Your task to perform on an android device: toggle notifications settings in the gmail app Image 0: 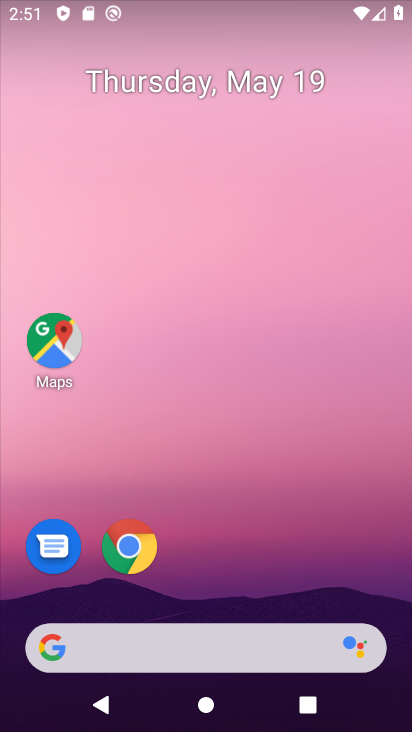
Step 0: drag from (209, 567) to (254, 102)
Your task to perform on an android device: toggle notifications settings in the gmail app Image 1: 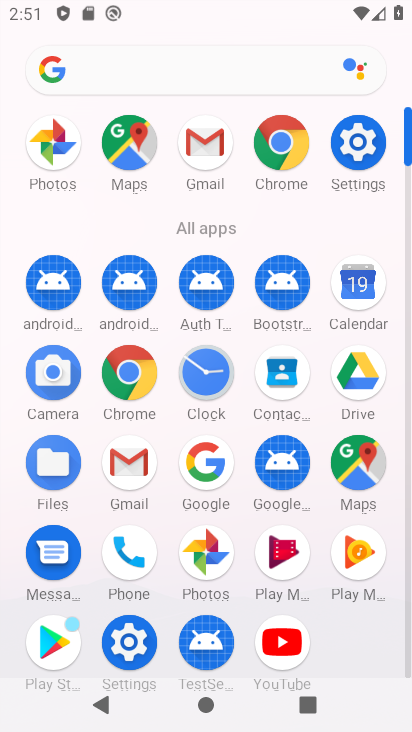
Step 1: click (137, 459)
Your task to perform on an android device: toggle notifications settings in the gmail app Image 2: 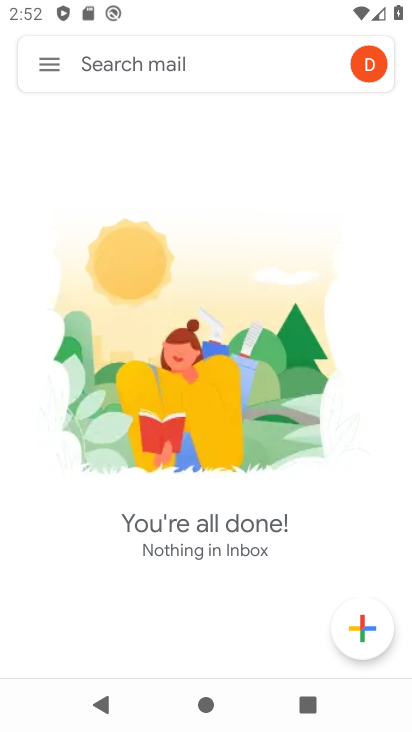
Step 2: click (54, 68)
Your task to perform on an android device: toggle notifications settings in the gmail app Image 3: 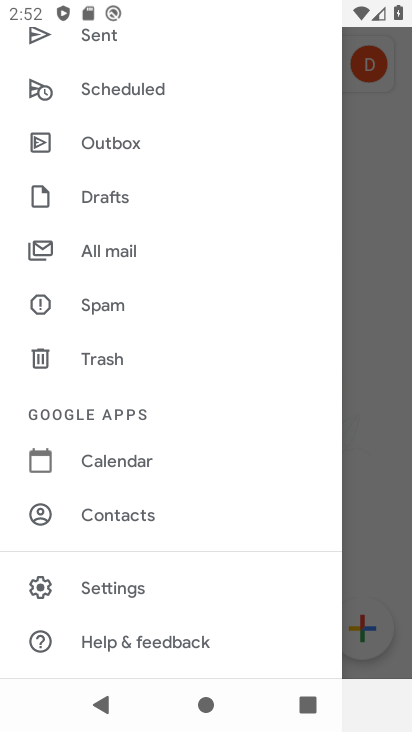
Step 3: click (126, 591)
Your task to perform on an android device: toggle notifications settings in the gmail app Image 4: 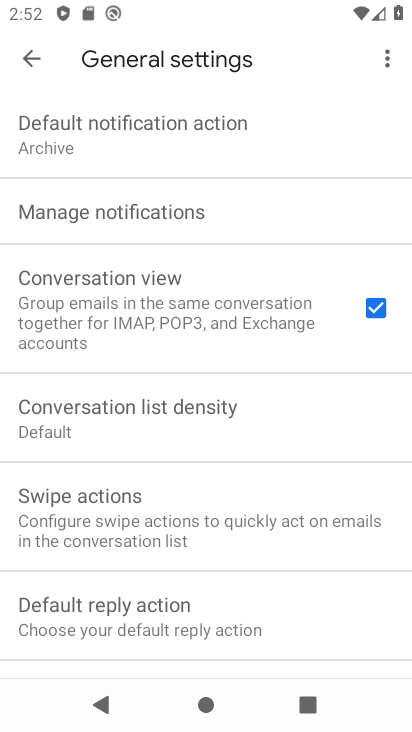
Step 4: click (193, 211)
Your task to perform on an android device: toggle notifications settings in the gmail app Image 5: 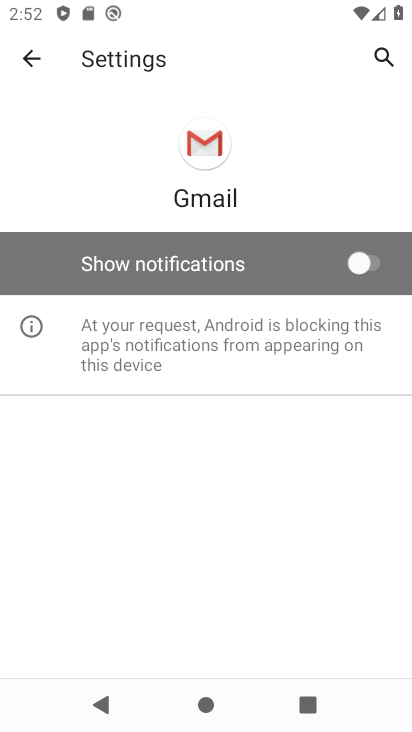
Step 5: click (377, 265)
Your task to perform on an android device: toggle notifications settings in the gmail app Image 6: 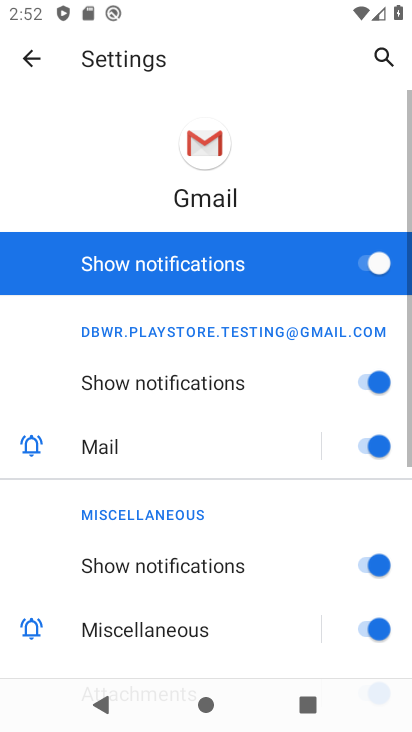
Step 6: task complete